Your task to perform on an android device: Open Chrome and go to settings Image 0: 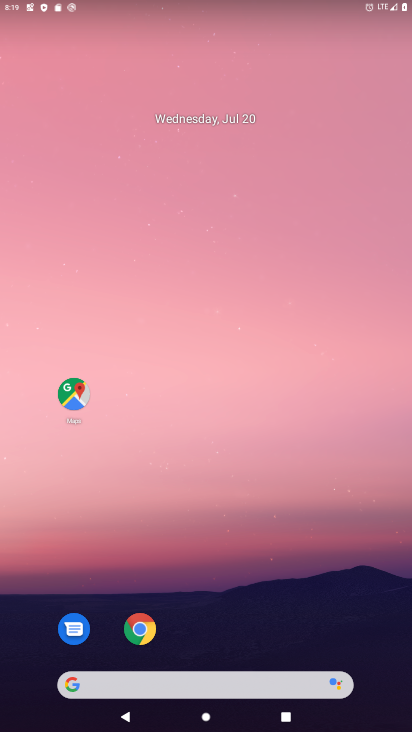
Step 0: click (126, 624)
Your task to perform on an android device: Open Chrome and go to settings Image 1: 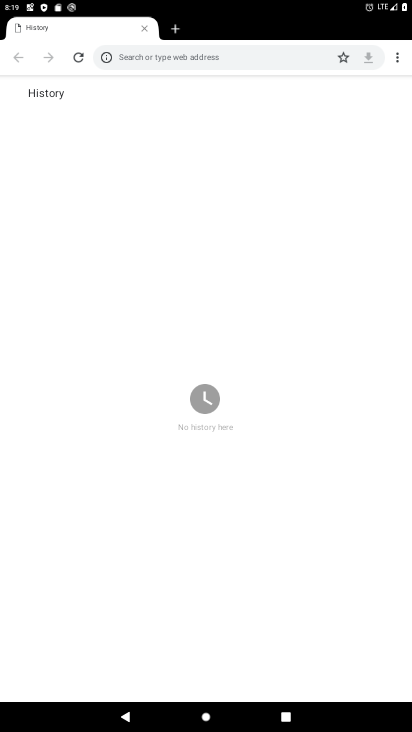
Step 1: click (396, 59)
Your task to perform on an android device: Open Chrome and go to settings Image 2: 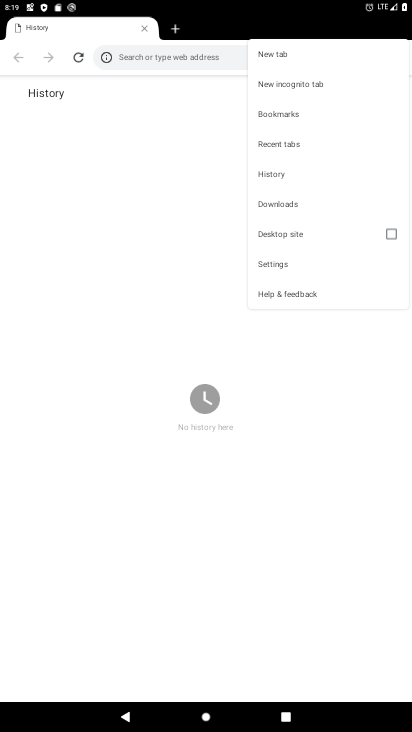
Step 2: click (280, 265)
Your task to perform on an android device: Open Chrome and go to settings Image 3: 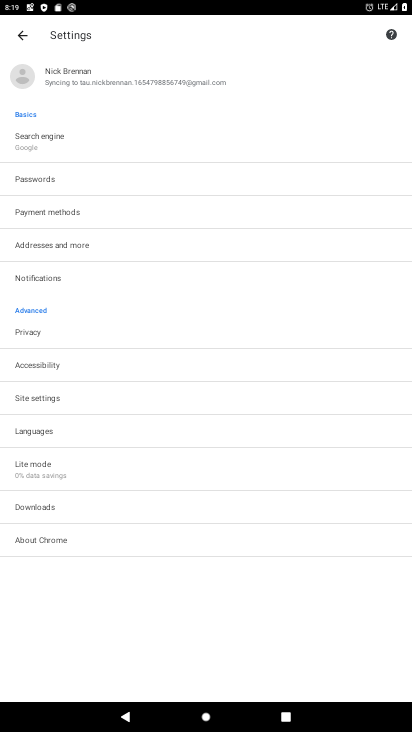
Step 3: task complete